Your task to perform on an android device: Is it going to rain this weekend? Image 0: 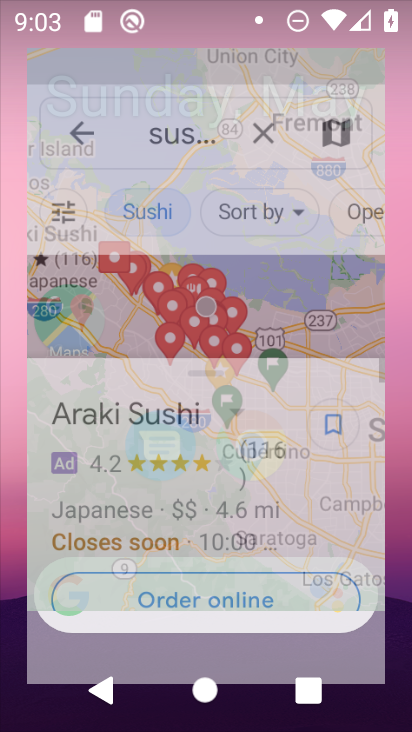
Step 0: drag from (247, 460) to (250, 170)
Your task to perform on an android device: Is it going to rain this weekend? Image 1: 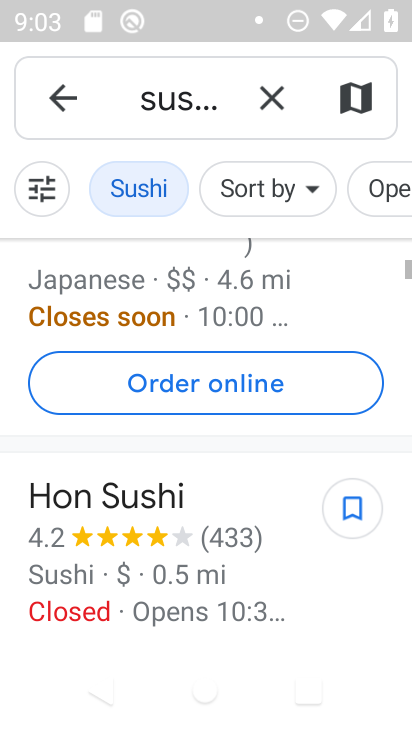
Step 1: press home button
Your task to perform on an android device: Is it going to rain this weekend? Image 2: 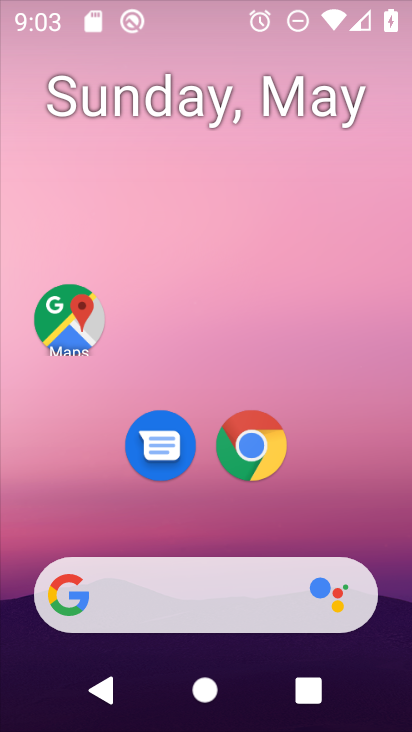
Step 2: drag from (255, 557) to (328, 106)
Your task to perform on an android device: Is it going to rain this weekend? Image 3: 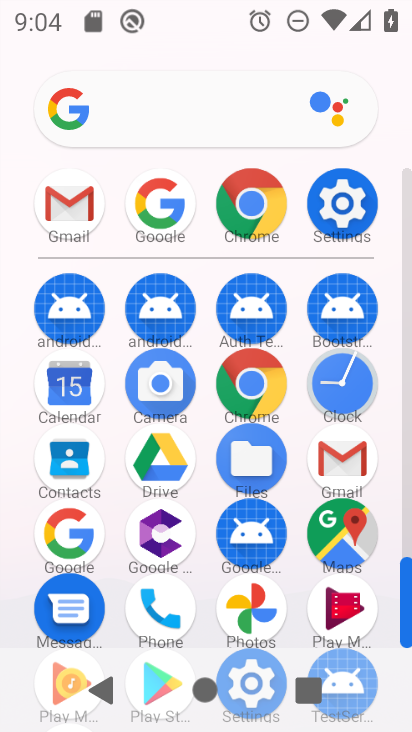
Step 3: click (74, 541)
Your task to perform on an android device: Is it going to rain this weekend? Image 4: 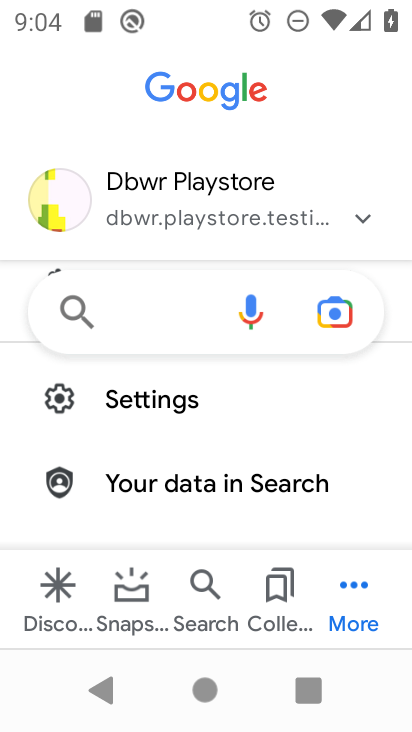
Step 4: drag from (205, 494) to (205, 324)
Your task to perform on an android device: Is it going to rain this weekend? Image 5: 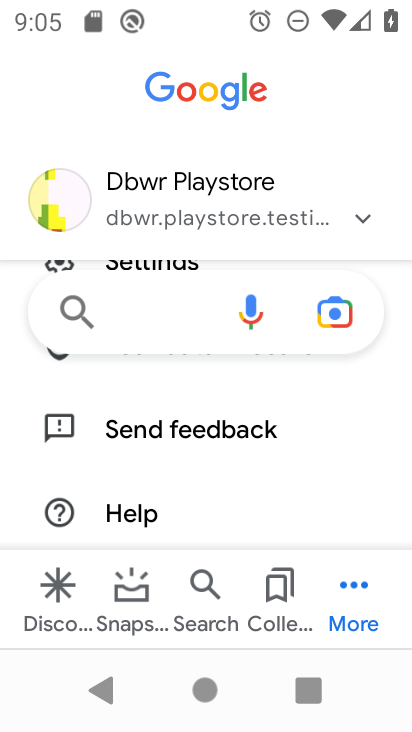
Step 5: click (63, 601)
Your task to perform on an android device: Is it going to rain this weekend? Image 6: 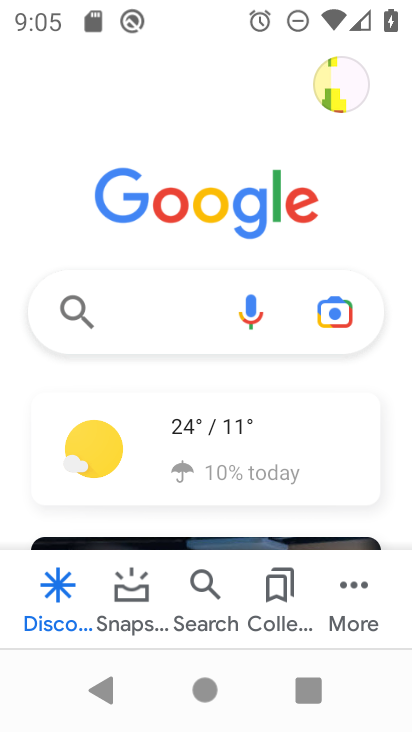
Step 6: click (165, 322)
Your task to perform on an android device: Is it going to rain this weekend? Image 7: 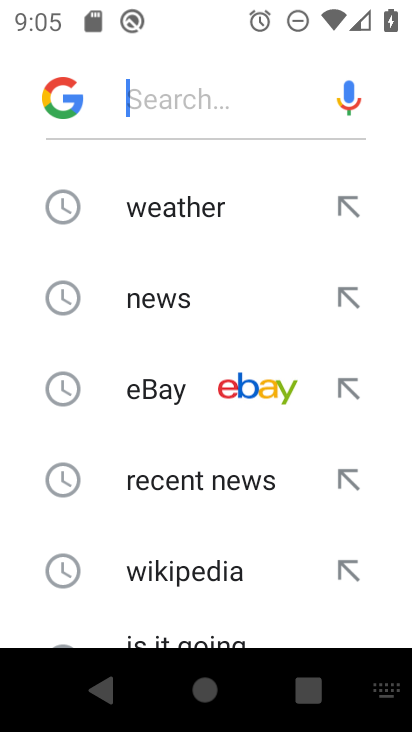
Step 7: drag from (190, 474) to (229, 309)
Your task to perform on an android device: Is it going to rain this weekend? Image 8: 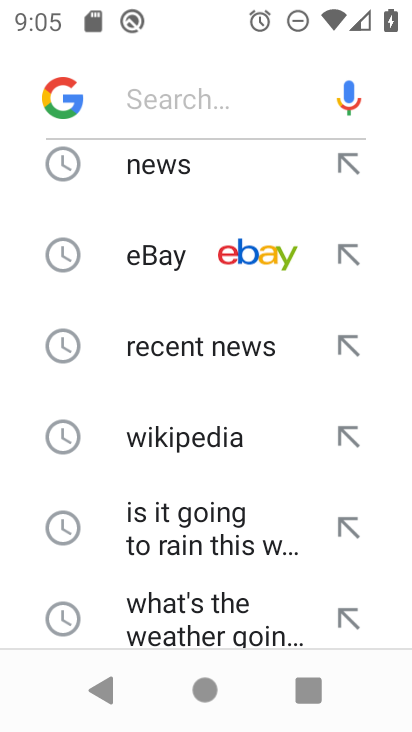
Step 8: drag from (209, 452) to (208, 648)
Your task to perform on an android device: Is it going to rain this weekend? Image 9: 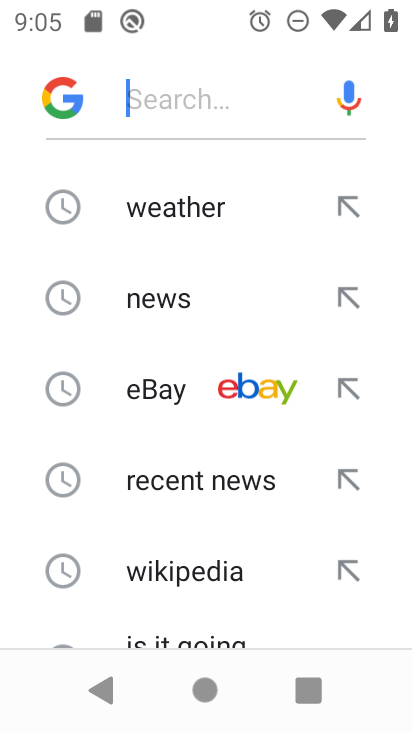
Step 9: click (187, 209)
Your task to perform on an android device: Is it going to rain this weekend? Image 10: 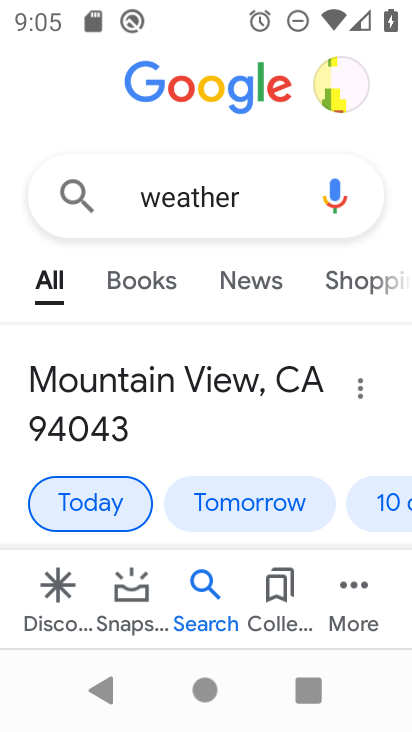
Step 10: click (396, 510)
Your task to perform on an android device: Is it going to rain this weekend? Image 11: 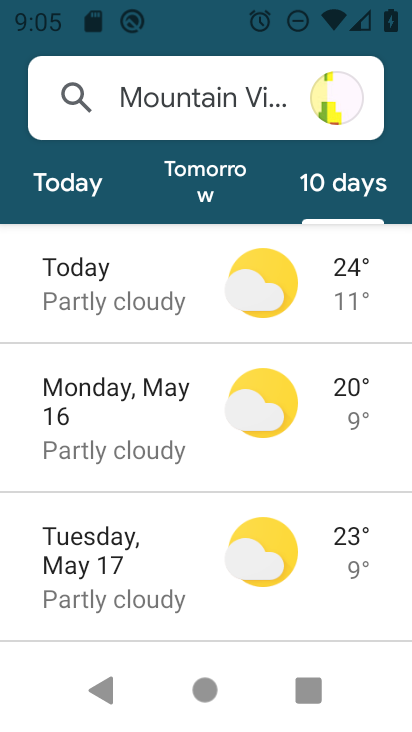
Step 11: task complete